Your task to perform on an android device: What's the weather? Image 0: 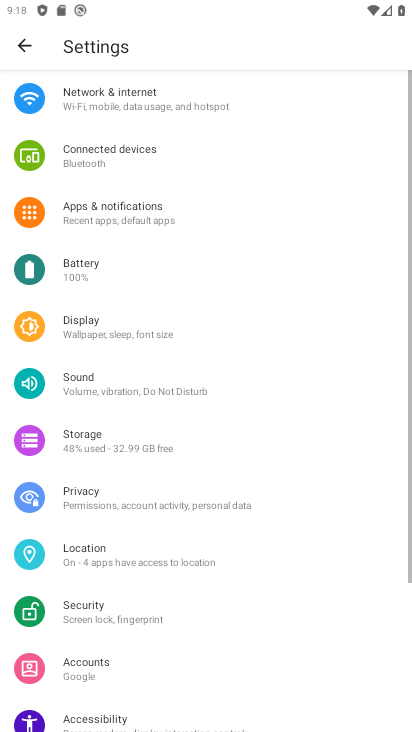
Step 0: press home button
Your task to perform on an android device: What's the weather? Image 1: 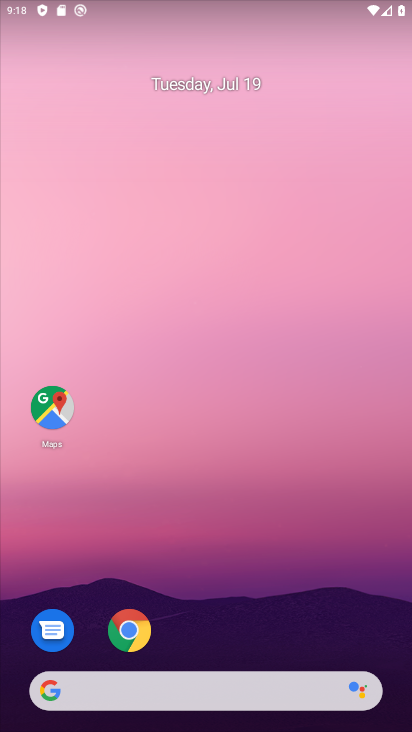
Step 1: click (127, 626)
Your task to perform on an android device: What's the weather? Image 2: 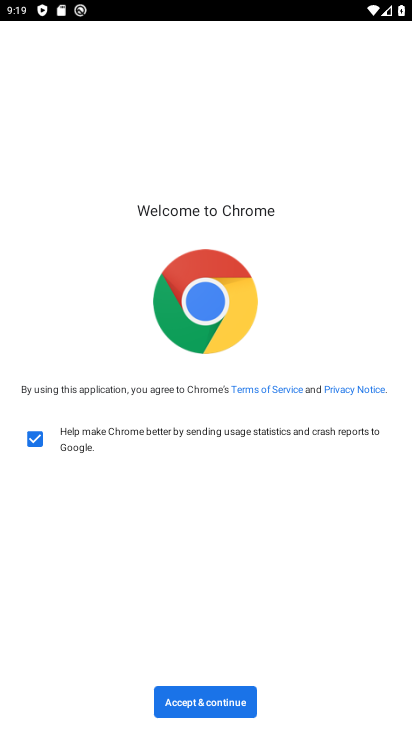
Step 2: click (187, 694)
Your task to perform on an android device: What's the weather? Image 3: 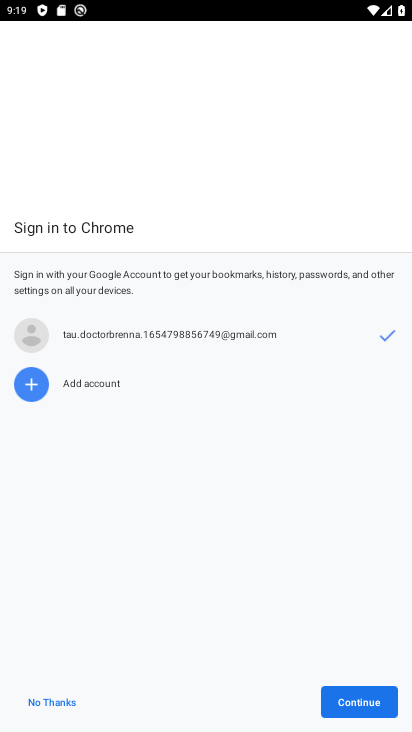
Step 3: click (370, 696)
Your task to perform on an android device: What's the weather? Image 4: 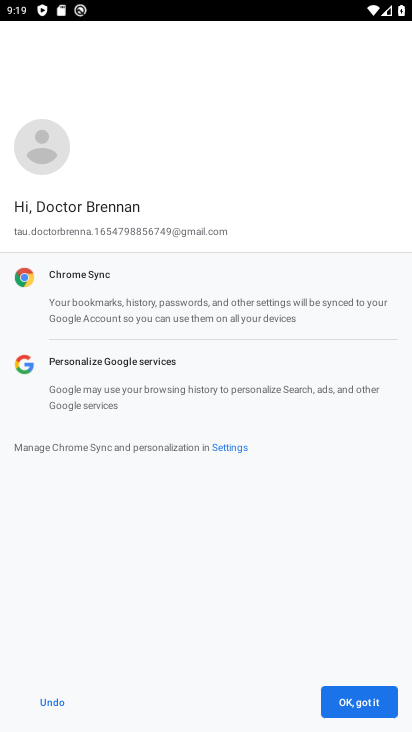
Step 4: click (370, 696)
Your task to perform on an android device: What's the weather? Image 5: 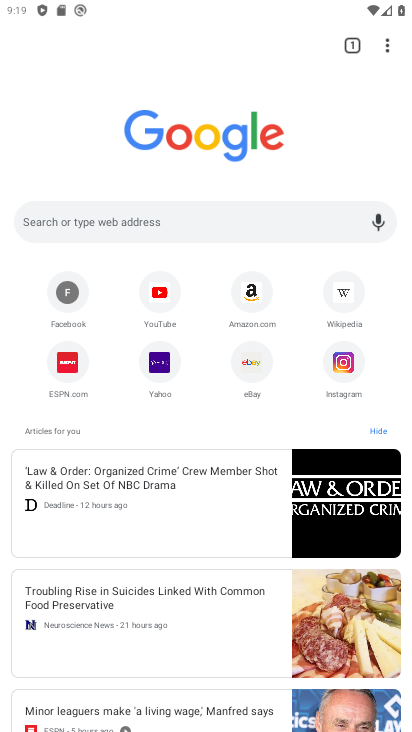
Step 5: click (130, 214)
Your task to perform on an android device: What's the weather? Image 6: 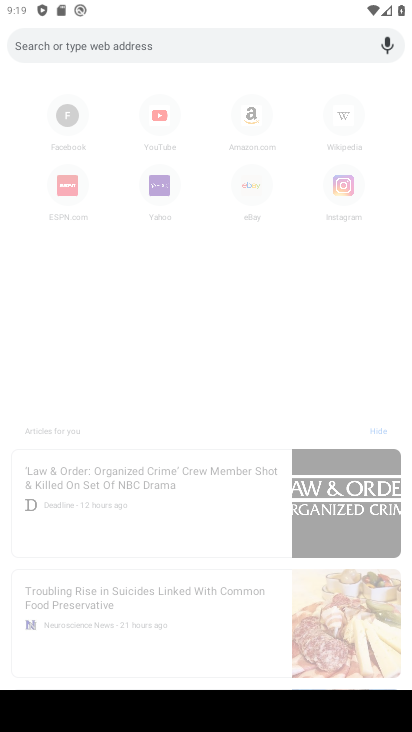
Step 6: type "weather"
Your task to perform on an android device: What's the weather? Image 7: 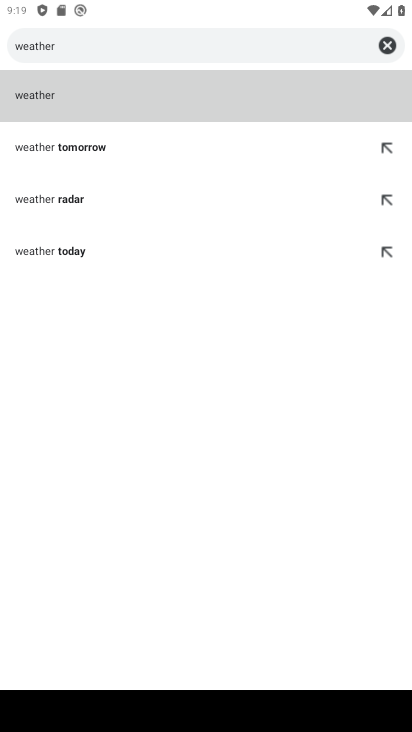
Step 7: click (150, 89)
Your task to perform on an android device: What's the weather? Image 8: 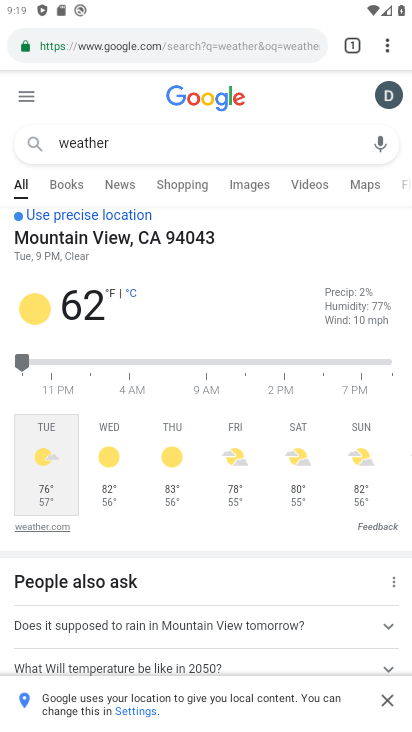
Step 8: task complete